Your task to perform on an android device: open app "Roku - Official Remote Control" (install if not already installed) and enter user name: "autumnal@gmail.com" and password: "stuffing" Image 0: 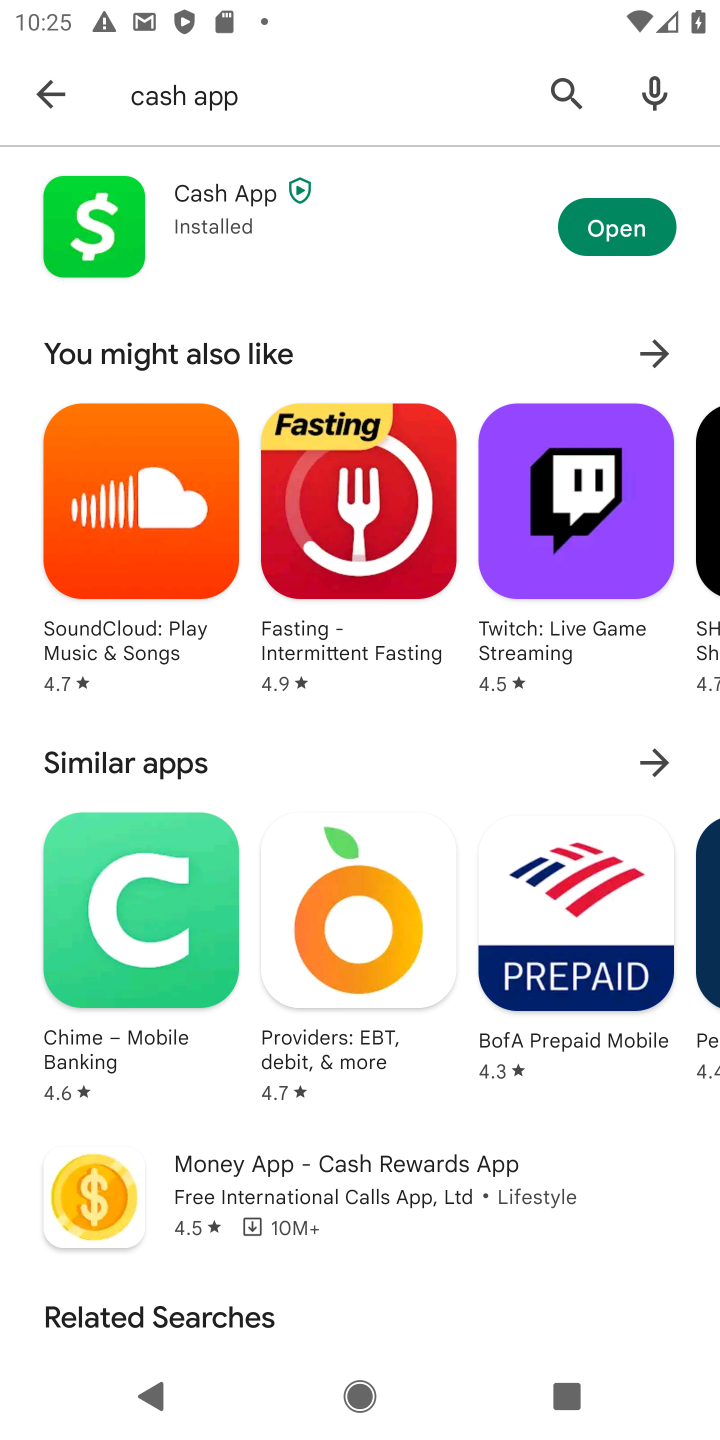
Step 0: click (580, 99)
Your task to perform on an android device: open app "Roku - Official Remote Control" (install if not already installed) and enter user name: "autumnal@gmail.com" and password: "stuffing" Image 1: 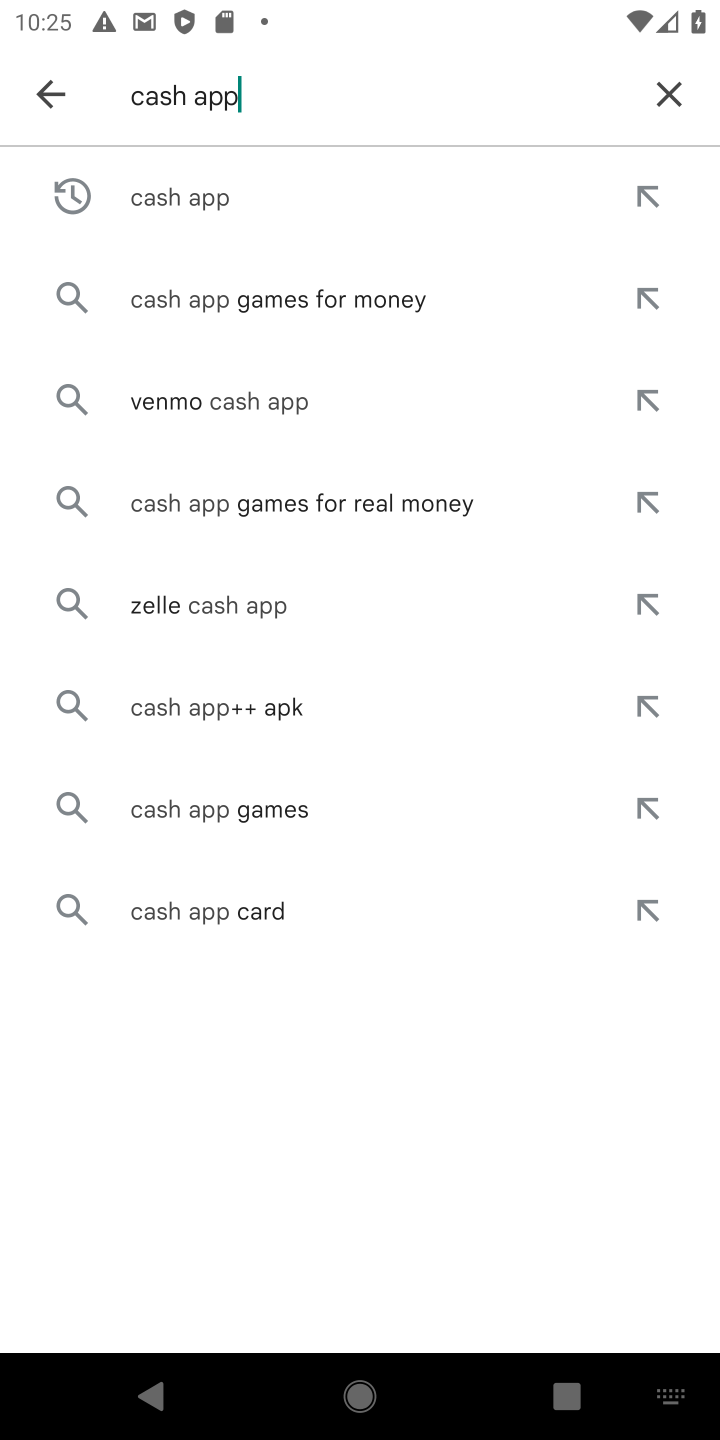
Step 1: click (672, 91)
Your task to perform on an android device: open app "Roku - Official Remote Control" (install if not already installed) and enter user name: "autumnal@gmail.com" and password: "stuffing" Image 2: 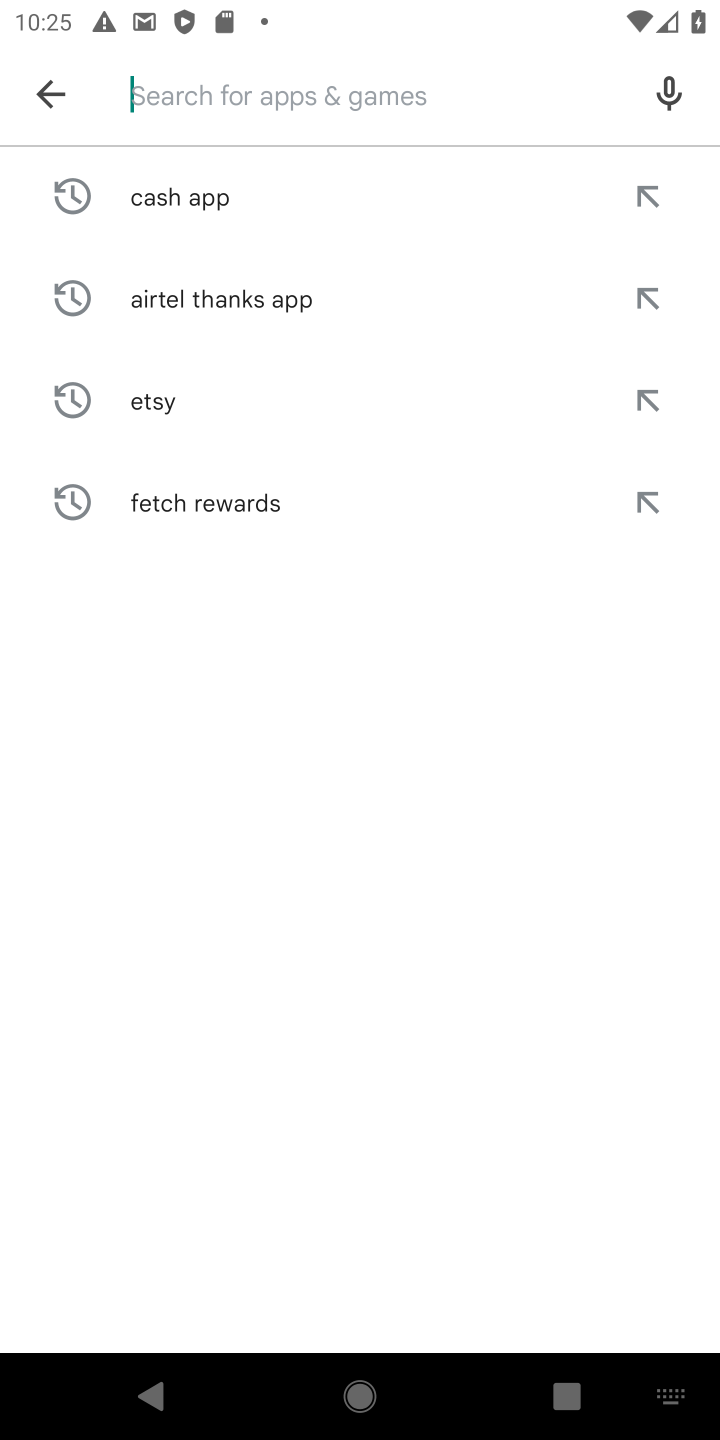
Step 2: type "roku"
Your task to perform on an android device: open app "Roku - Official Remote Control" (install if not already installed) and enter user name: "autumnal@gmail.com" and password: "stuffing" Image 3: 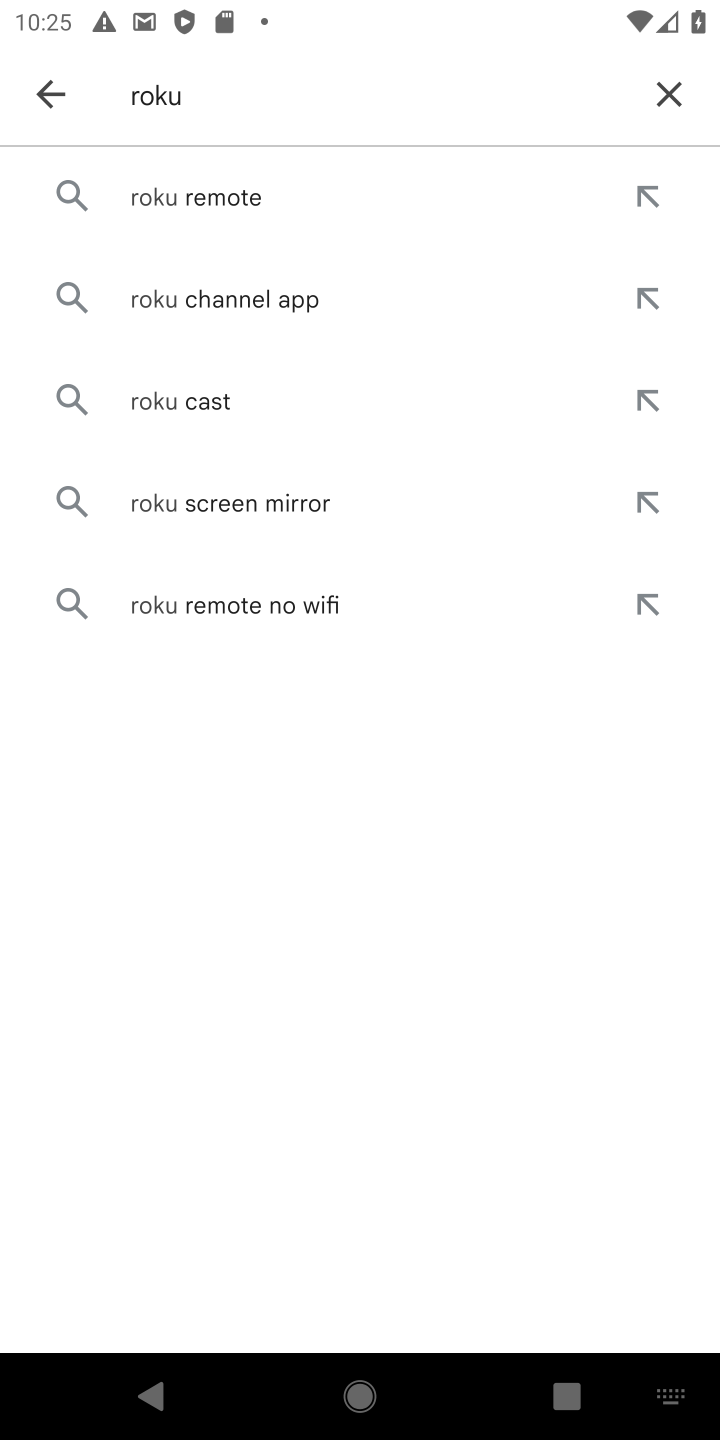
Step 3: click (227, 200)
Your task to perform on an android device: open app "Roku - Official Remote Control" (install if not already installed) and enter user name: "autumnal@gmail.com" and password: "stuffing" Image 4: 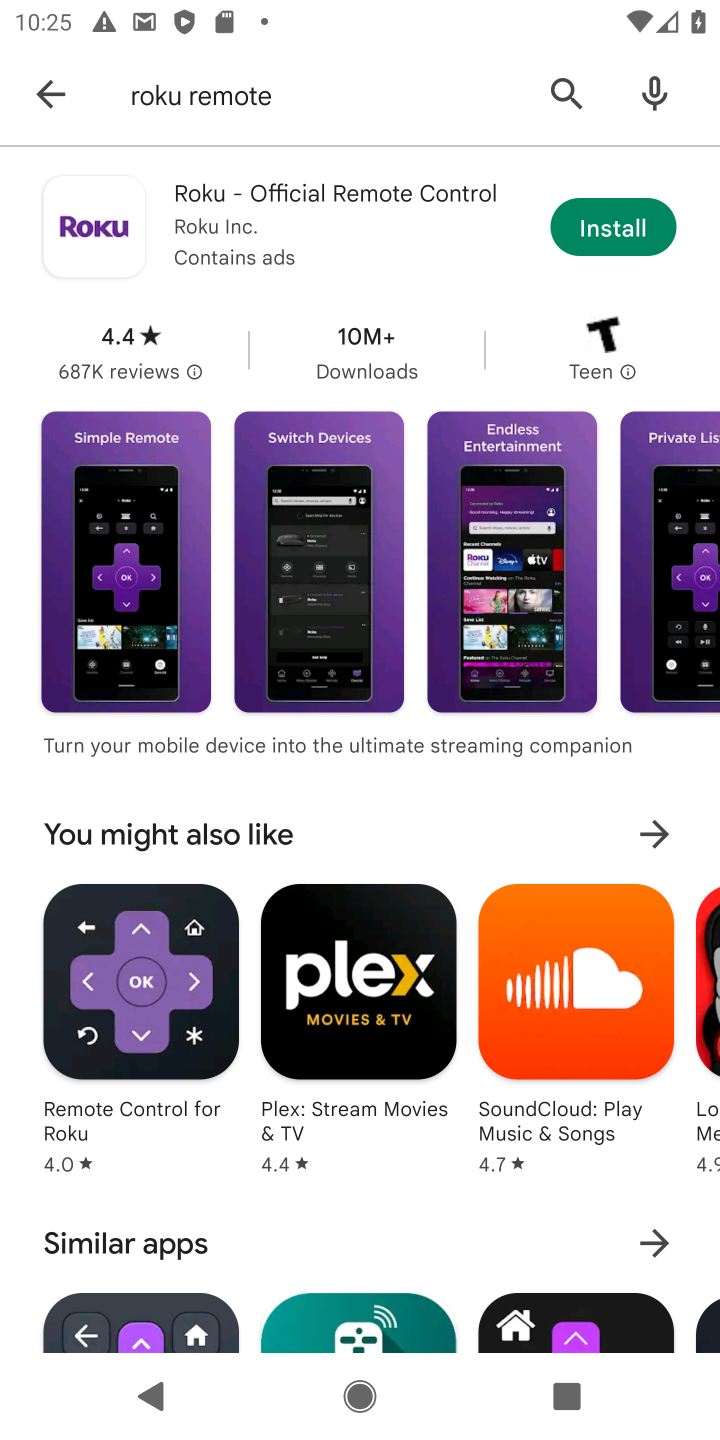
Step 4: click (581, 215)
Your task to perform on an android device: open app "Roku - Official Remote Control" (install if not already installed) and enter user name: "autumnal@gmail.com" and password: "stuffing" Image 5: 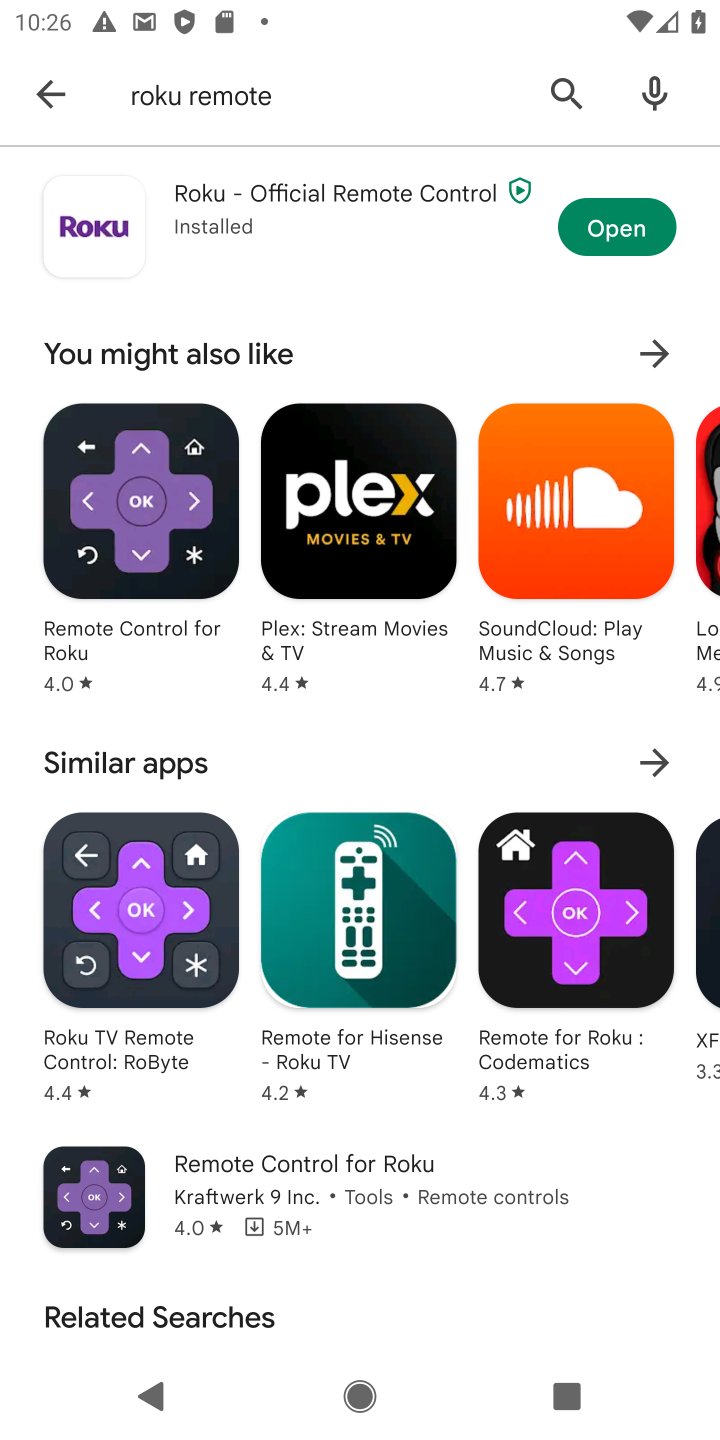
Step 5: click (639, 223)
Your task to perform on an android device: open app "Roku - Official Remote Control" (install if not already installed) and enter user name: "autumnal@gmail.com" and password: "stuffing" Image 6: 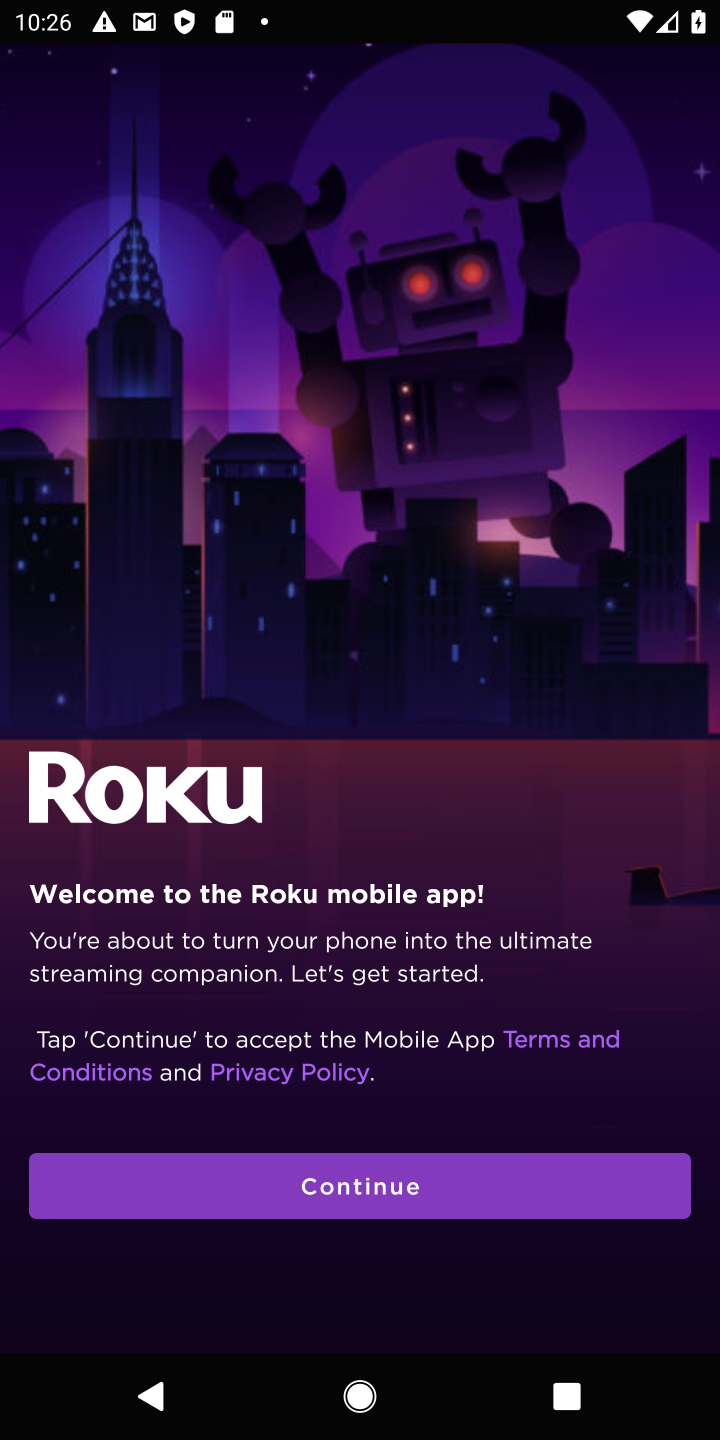
Step 6: click (470, 1182)
Your task to perform on an android device: open app "Roku - Official Remote Control" (install if not already installed) and enter user name: "autumnal@gmail.com" and password: "stuffing" Image 7: 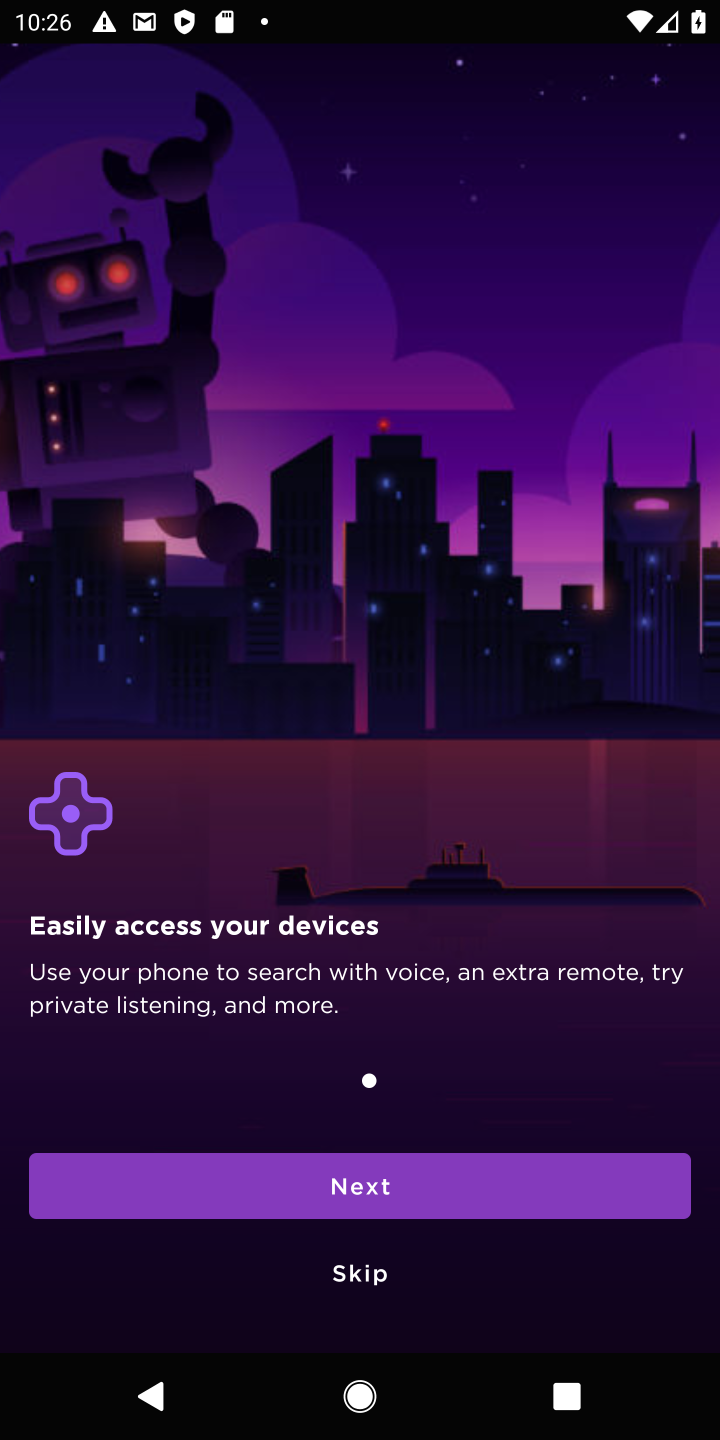
Step 7: click (456, 1191)
Your task to perform on an android device: open app "Roku - Official Remote Control" (install if not already installed) and enter user name: "autumnal@gmail.com" and password: "stuffing" Image 8: 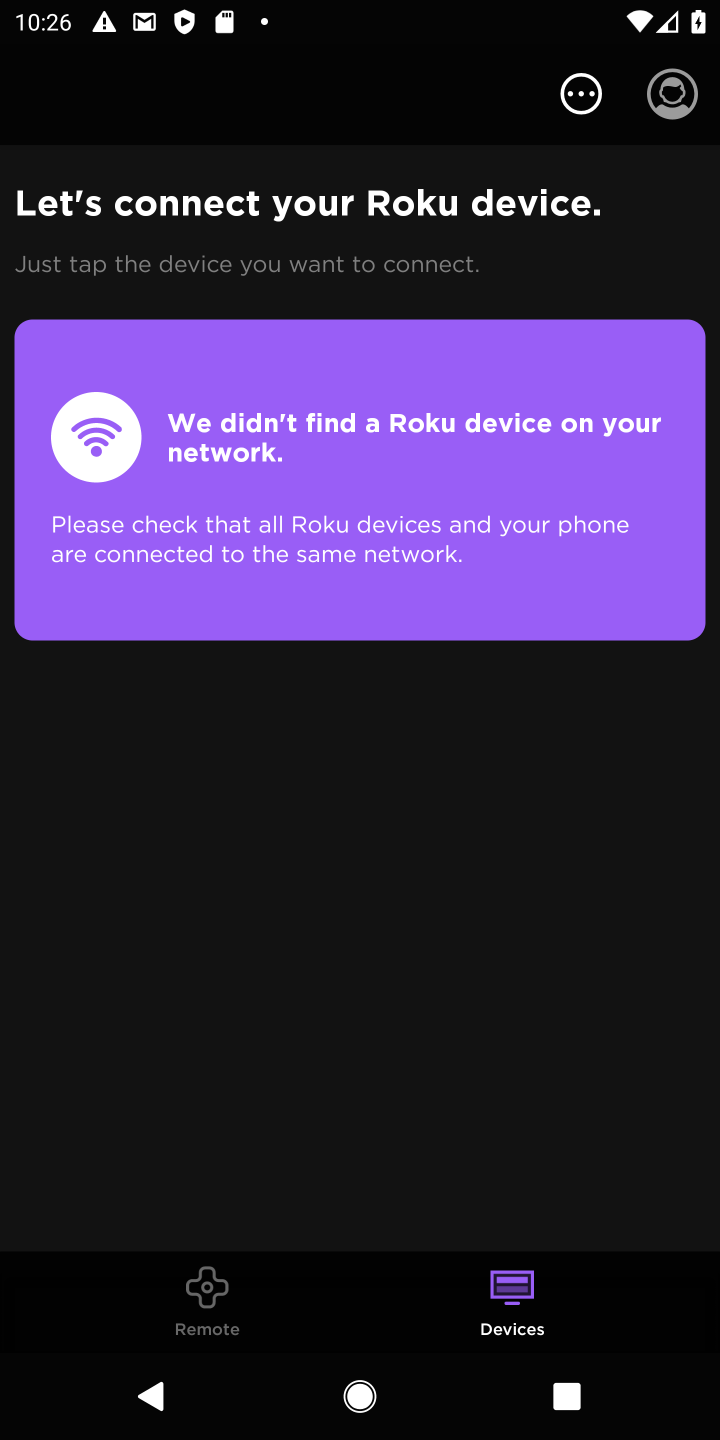
Step 8: click (669, 103)
Your task to perform on an android device: open app "Roku - Official Remote Control" (install if not already installed) and enter user name: "autumnal@gmail.com" and password: "stuffing" Image 9: 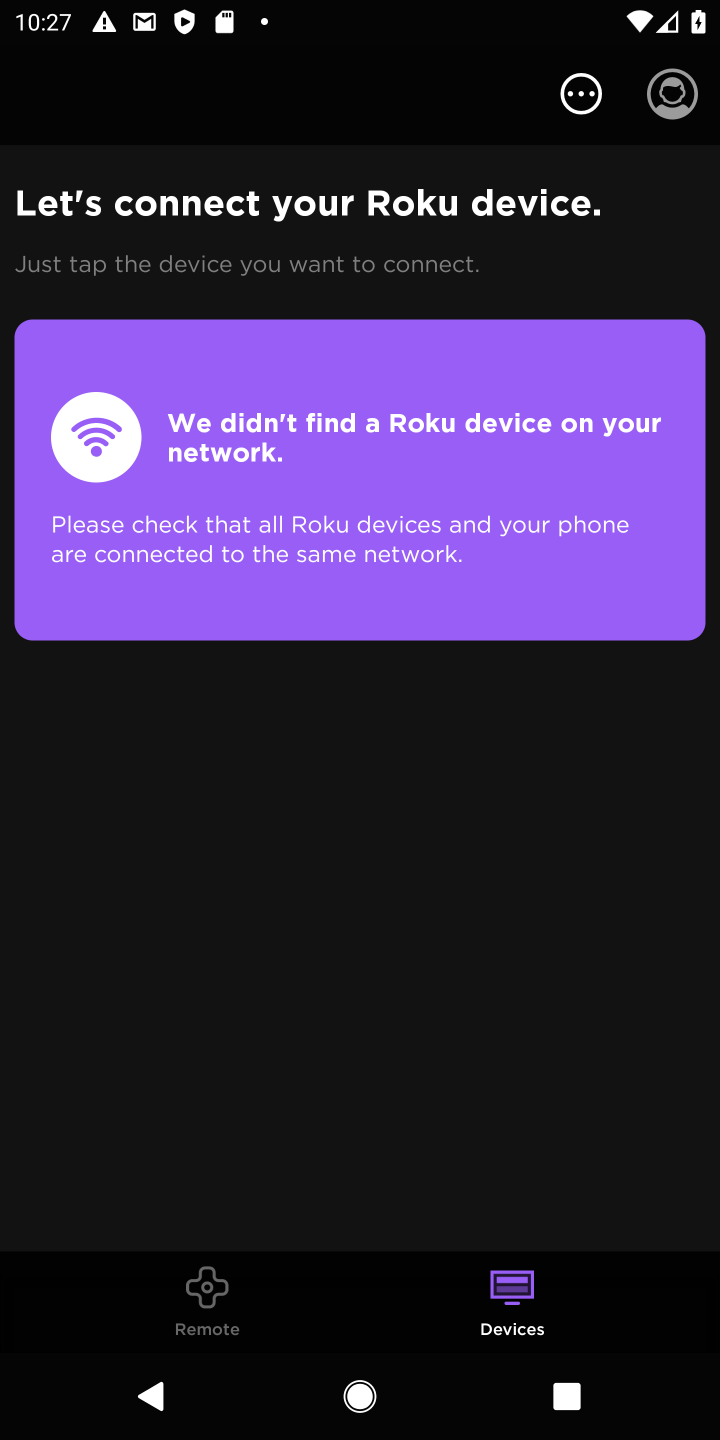
Step 9: click (534, 709)
Your task to perform on an android device: open app "Roku - Official Remote Control" (install if not already installed) and enter user name: "autumnal@gmail.com" and password: "stuffing" Image 10: 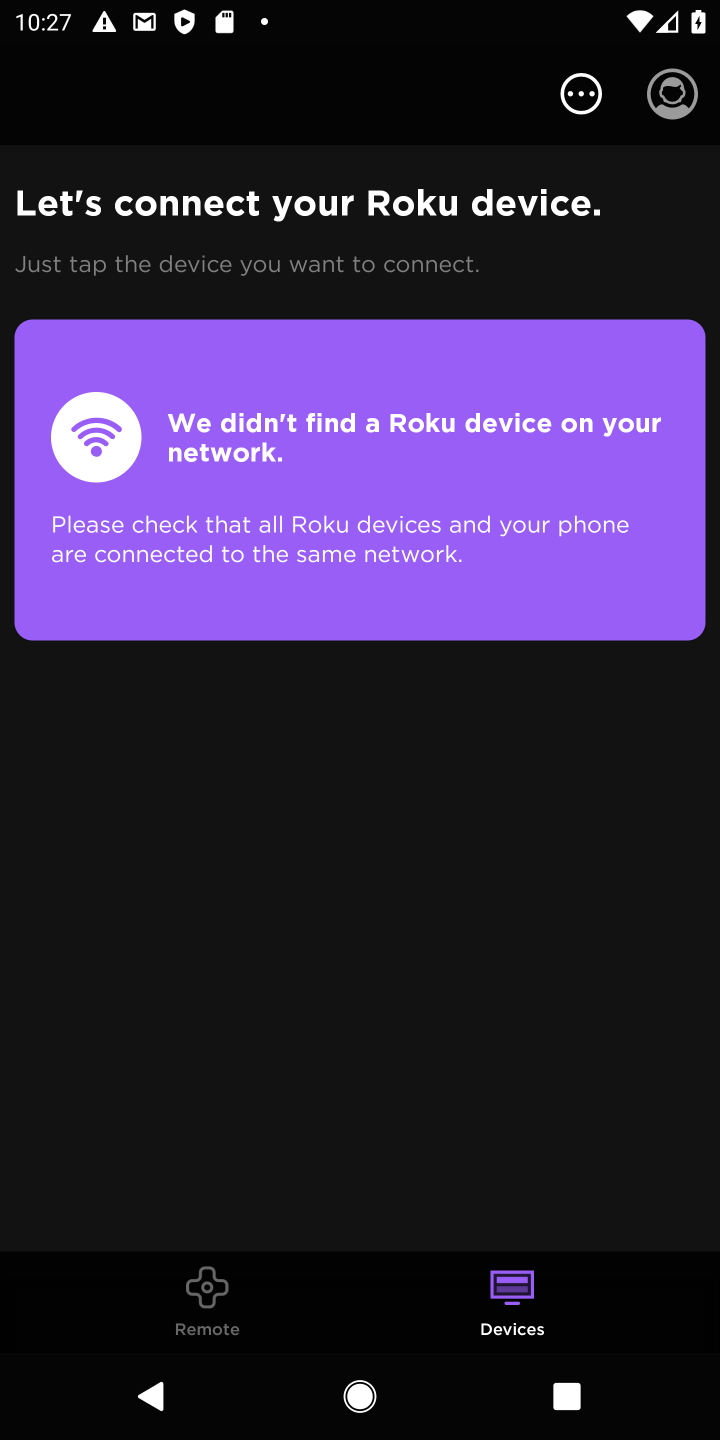
Step 10: click (677, 112)
Your task to perform on an android device: open app "Roku - Official Remote Control" (install if not already installed) and enter user name: "autumnal@gmail.com" and password: "stuffing" Image 11: 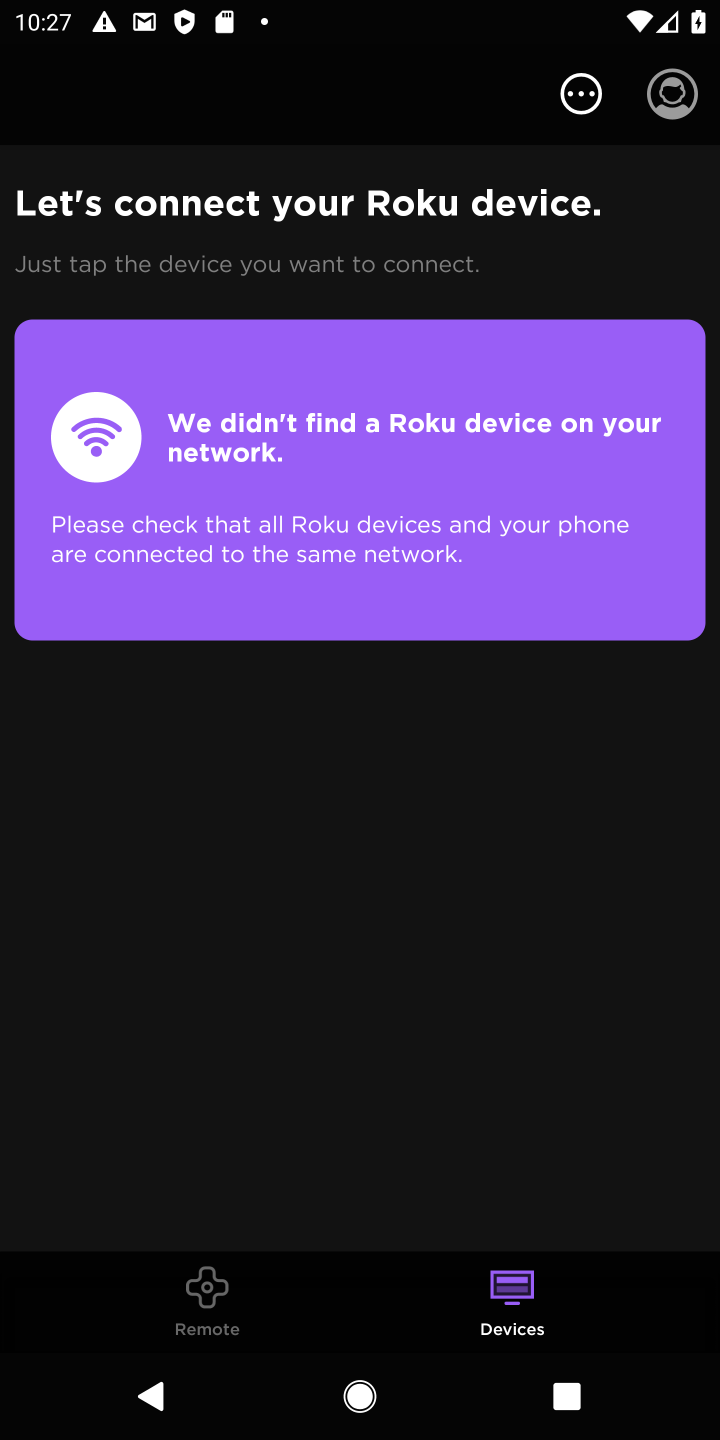
Step 11: task complete